Your task to perform on an android device: change the clock display to analog Image 0: 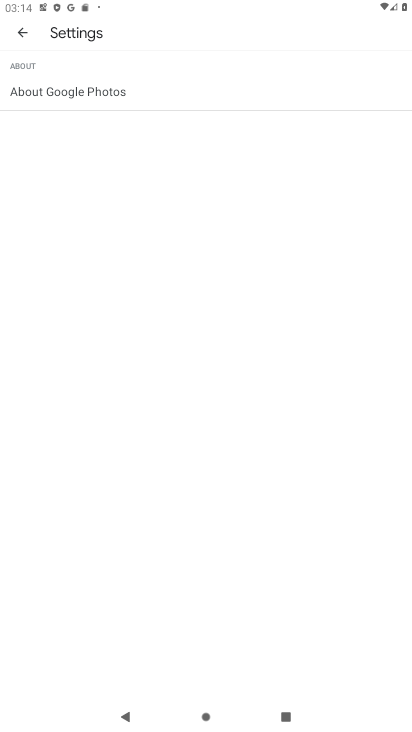
Step 0: press home button
Your task to perform on an android device: change the clock display to analog Image 1: 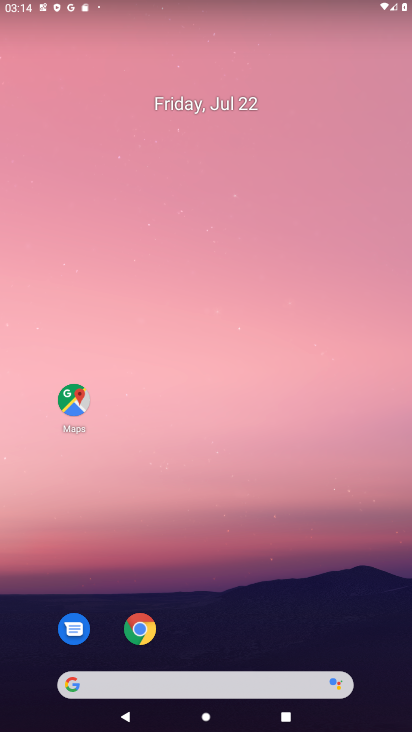
Step 1: drag from (233, 598) to (200, 163)
Your task to perform on an android device: change the clock display to analog Image 2: 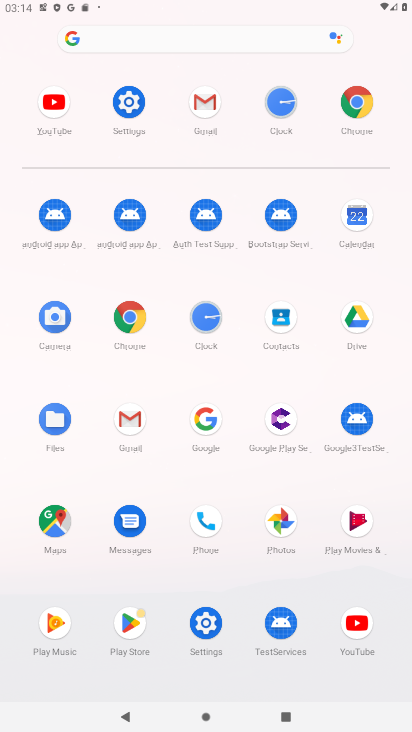
Step 2: click (206, 317)
Your task to perform on an android device: change the clock display to analog Image 3: 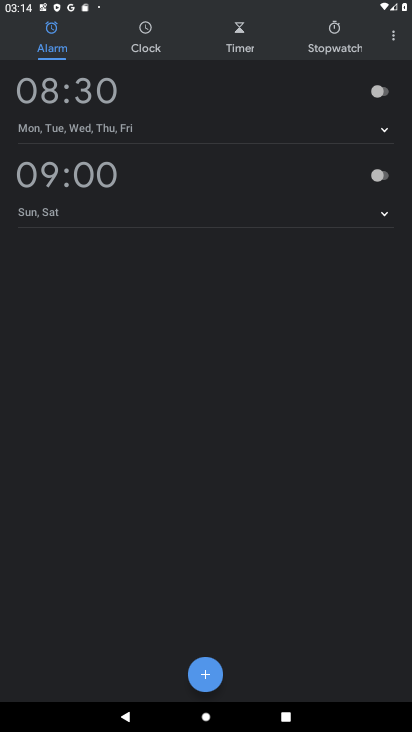
Step 3: click (392, 36)
Your task to perform on an android device: change the clock display to analog Image 4: 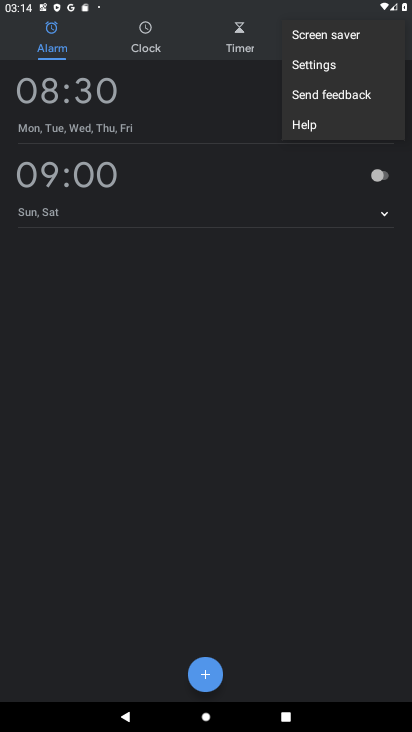
Step 4: click (317, 63)
Your task to perform on an android device: change the clock display to analog Image 5: 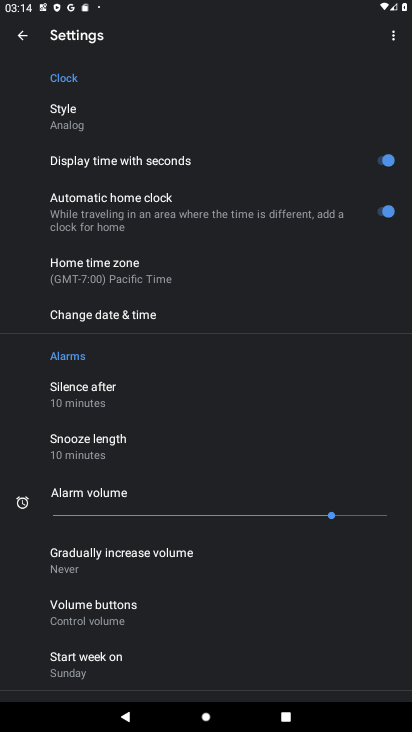
Step 5: task complete